Your task to perform on an android device: star an email in the gmail app Image 0: 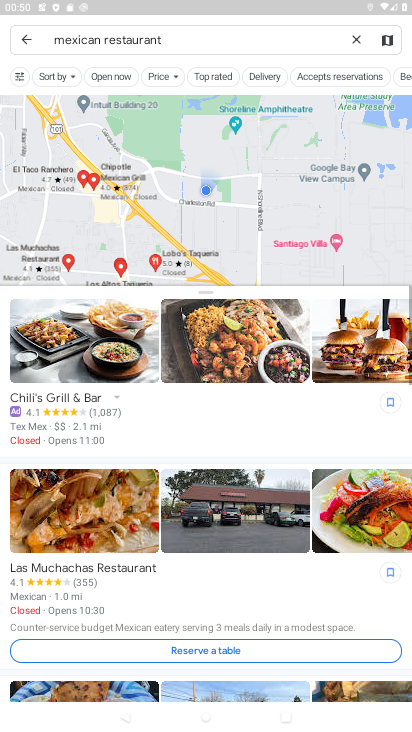
Step 0: press home button
Your task to perform on an android device: star an email in the gmail app Image 1: 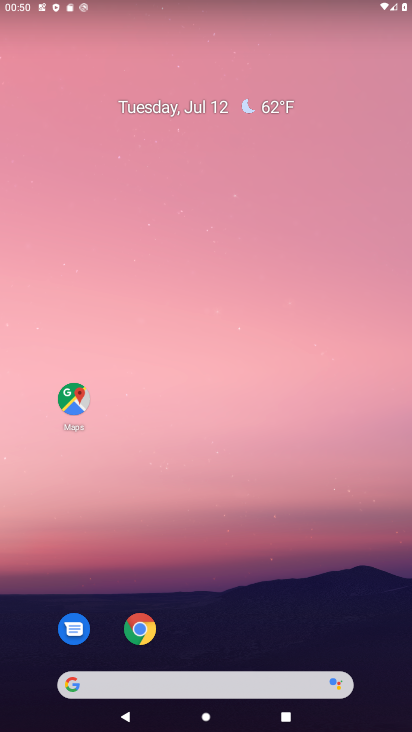
Step 1: drag from (290, 614) to (53, 8)
Your task to perform on an android device: star an email in the gmail app Image 2: 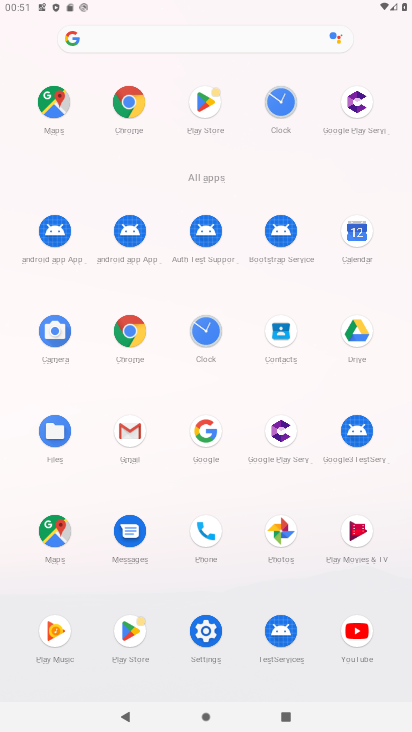
Step 2: click (126, 432)
Your task to perform on an android device: star an email in the gmail app Image 3: 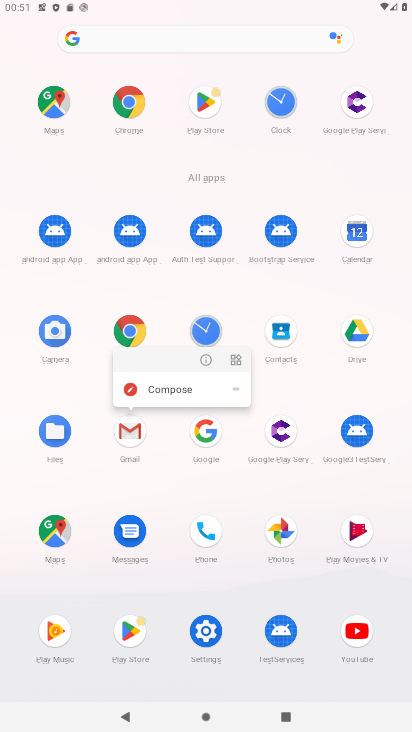
Step 3: click (119, 433)
Your task to perform on an android device: star an email in the gmail app Image 4: 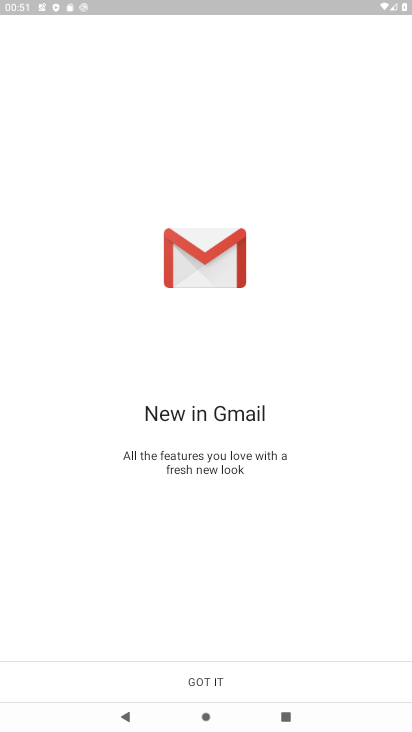
Step 4: click (288, 670)
Your task to perform on an android device: star an email in the gmail app Image 5: 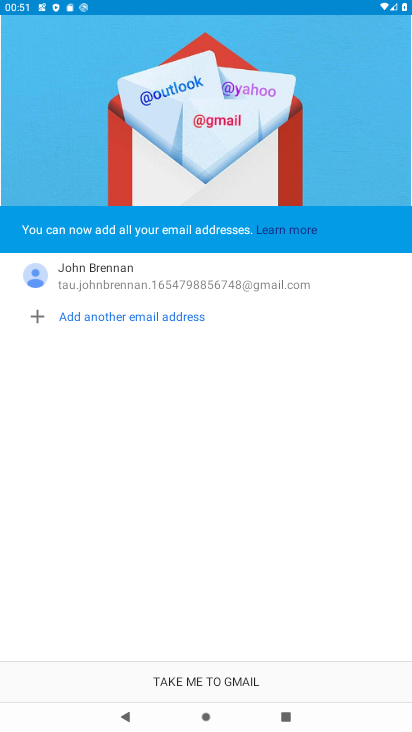
Step 5: click (168, 663)
Your task to perform on an android device: star an email in the gmail app Image 6: 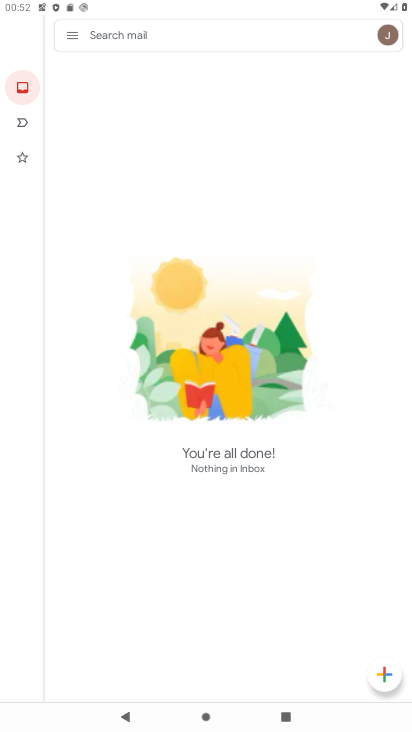
Step 6: click (27, 161)
Your task to perform on an android device: star an email in the gmail app Image 7: 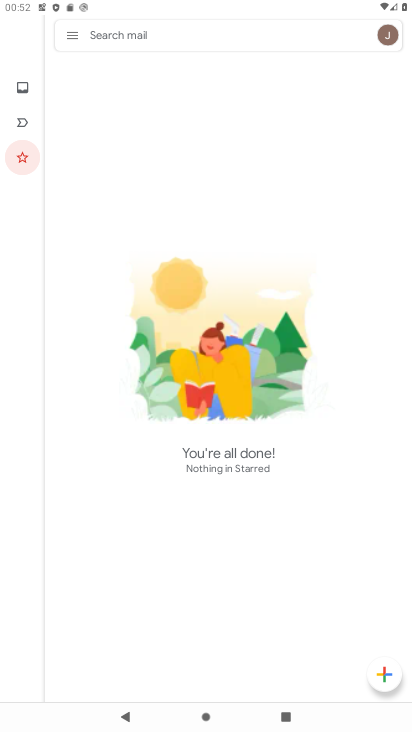
Step 7: task complete